Your task to perform on an android device: turn on javascript in the chrome app Image 0: 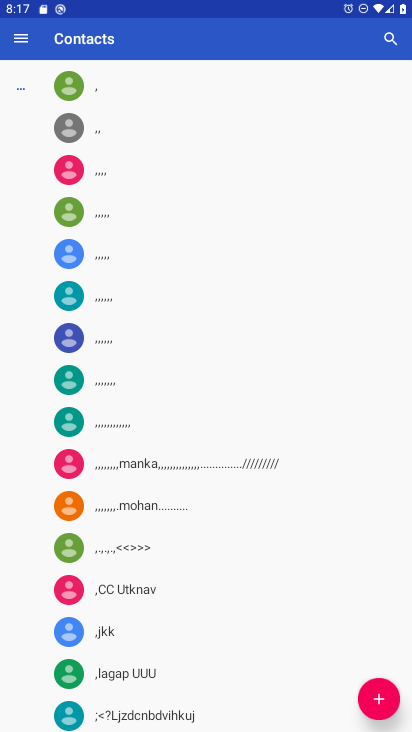
Step 0: press home button
Your task to perform on an android device: turn on javascript in the chrome app Image 1: 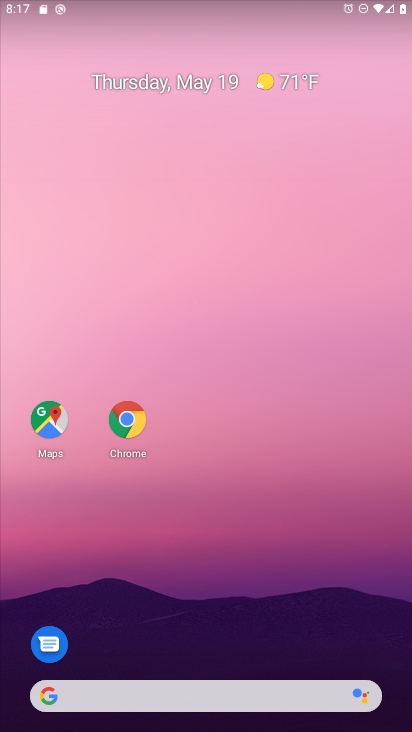
Step 1: click (120, 418)
Your task to perform on an android device: turn on javascript in the chrome app Image 2: 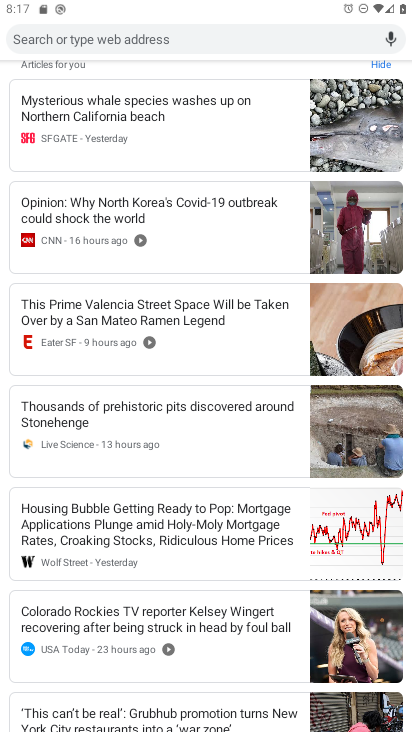
Step 2: drag from (236, 103) to (225, 594)
Your task to perform on an android device: turn on javascript in the chrome app Image 3: 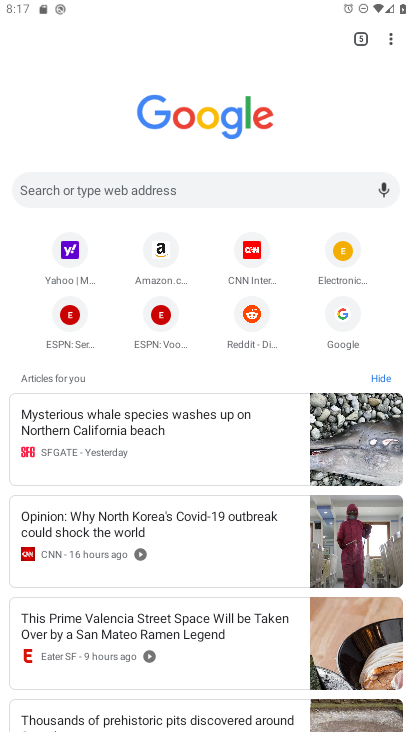
Step 3: click (393, 36)
Your task to perform on an android device: turn on javascript in the chrome app Image 4: 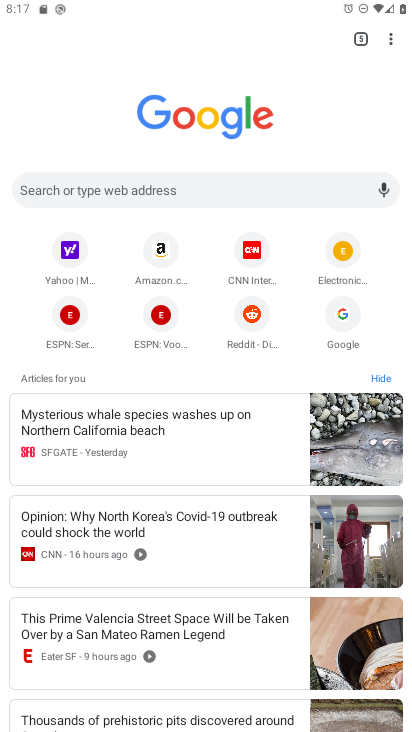
Step 4: click (393, 36)
Your task to perform on an android device: turn on javascript in the chrome app Image 5: 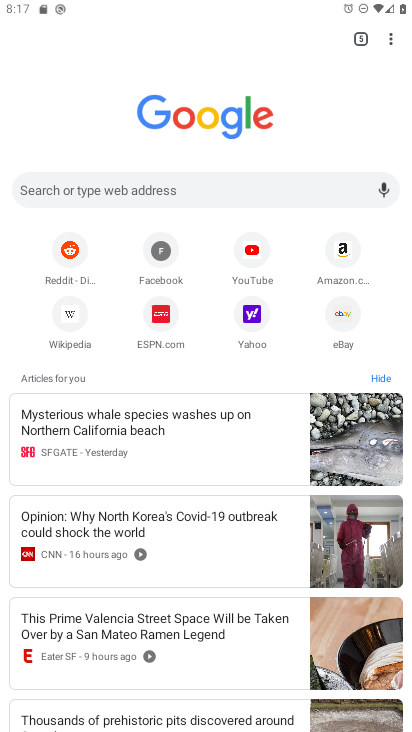
Step 5: click (387, 43)
Your task to perform on an android device: turn on javascript in the chrome app Image 6: 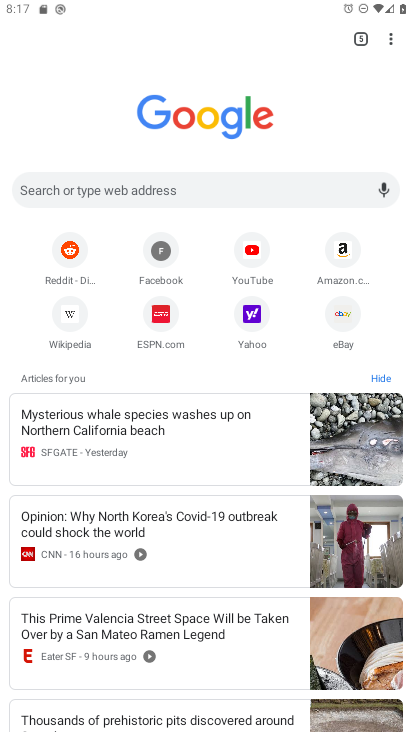
Step 6: click (387, 44)
Your task to perform on an android device: turn on javascript in the chrome app Image 7: 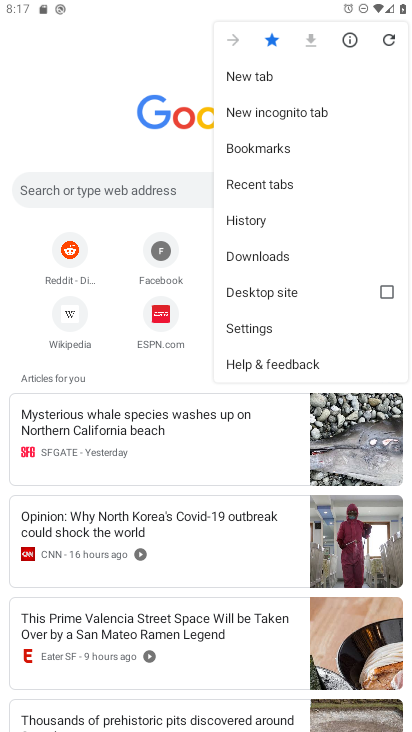
Step 7: click (260, 324)
Your task to perform on an android device: turn on javascript in the chrome app Image 8: 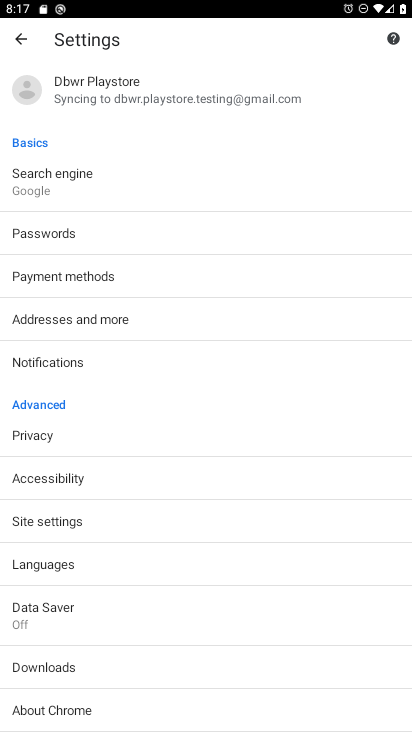
Step 8: click (22, 524)
Your task to perform on an android device: turn on javascript in the chrome app Image 9: 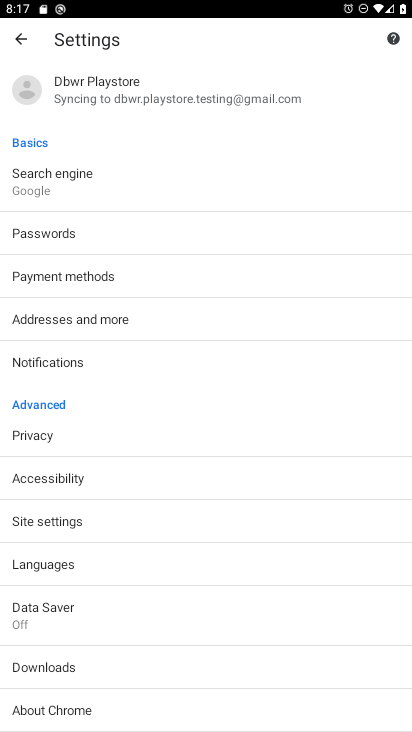
Step 9: click (21, 519)
Your task to perform on an android device: turn on javascript in the chrome app Image 10: 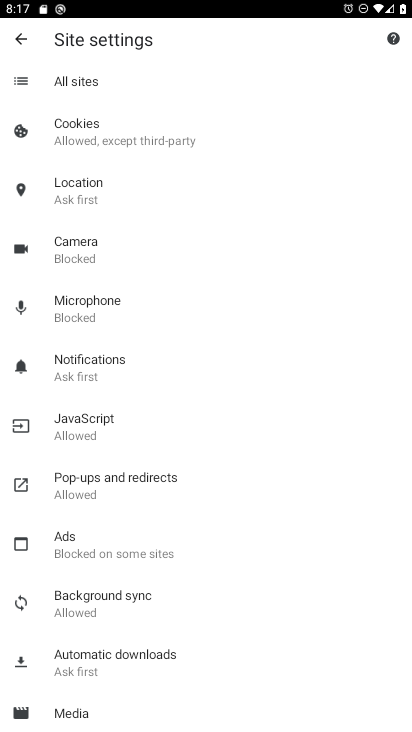
Step 10: click (62, 436)
Your task to perform on an android device: turn on javascript in the chrome app Image 11: 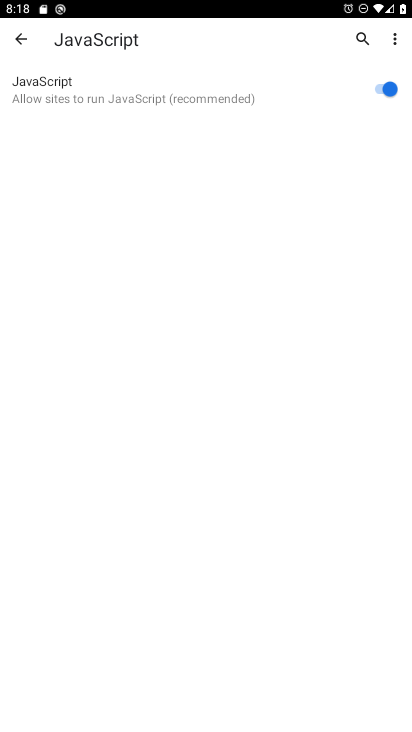
Step 11: task complete